Your task to perform on an android device: Open ESPN.com Image 0: 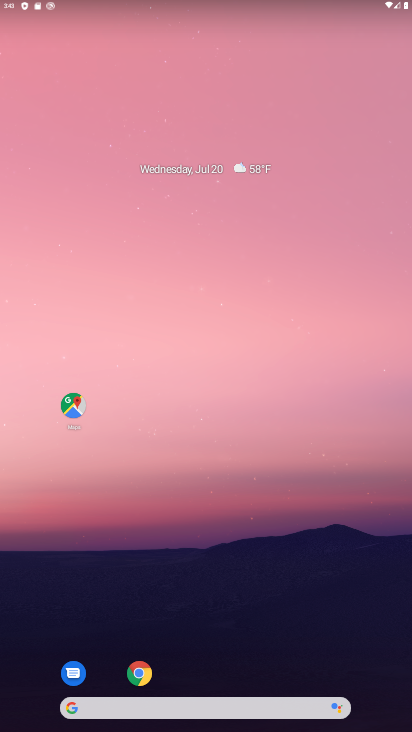
Step 0: click (144, 679)
Your task to perform on an android device: Open ESPN.com Image 1: 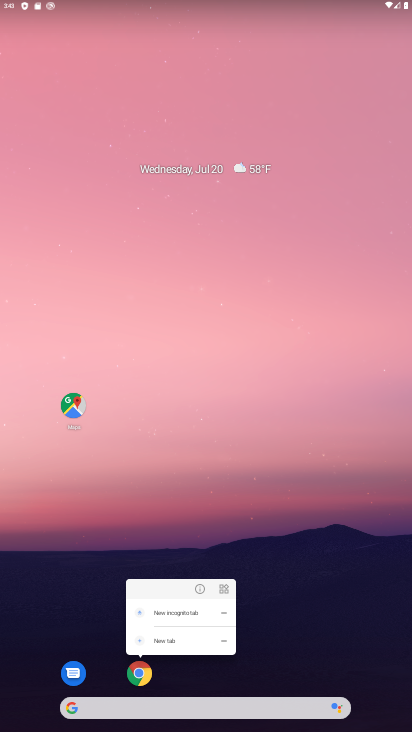
Step 1: click (144, 679)
Your task to perform on an android device: Open ESPN.com Image 2: 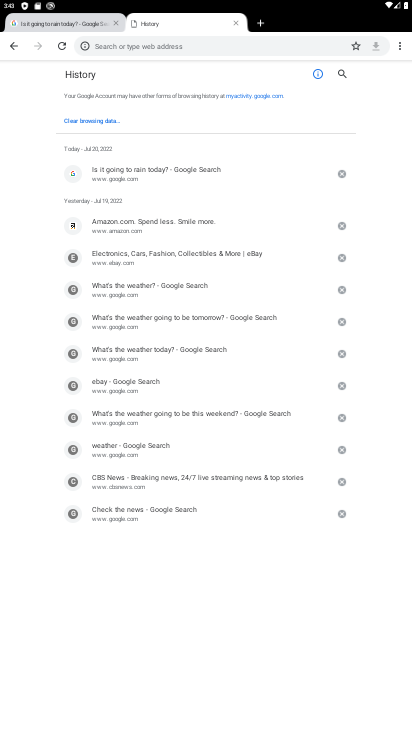
Step 2: click (260, 26)
Your task to perform on an android device: Open ESPN.com Image 3: 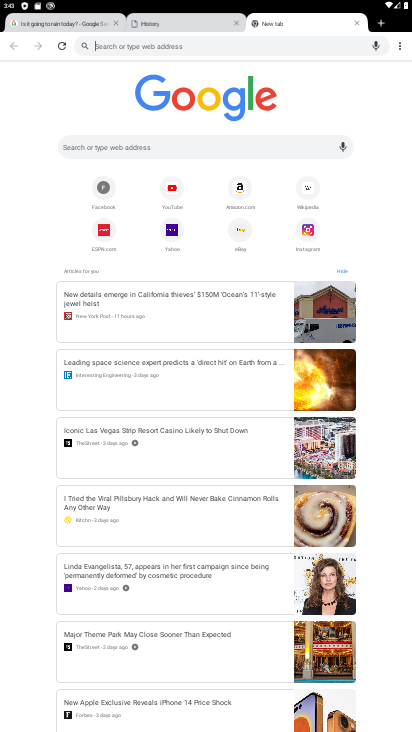
Step 3: click (104, 238)
Your task to perform on an android device: Open ESPN.com Image 4: 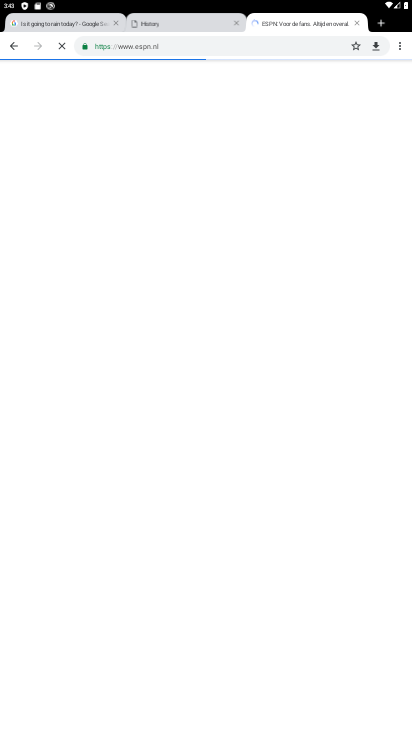
Step 4: task complete